Your task to perform on an android device: When is my next meeting? Image 0: 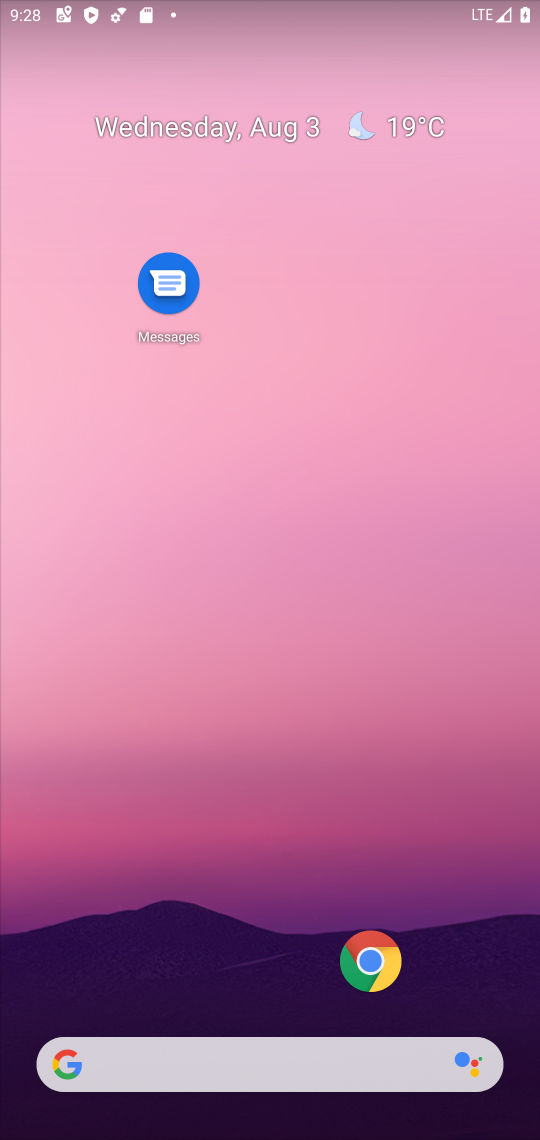
Step 0: drag from (261, 995) to (534, 692)
Your task to perform on an android device: When is my next meeting? Image 1: 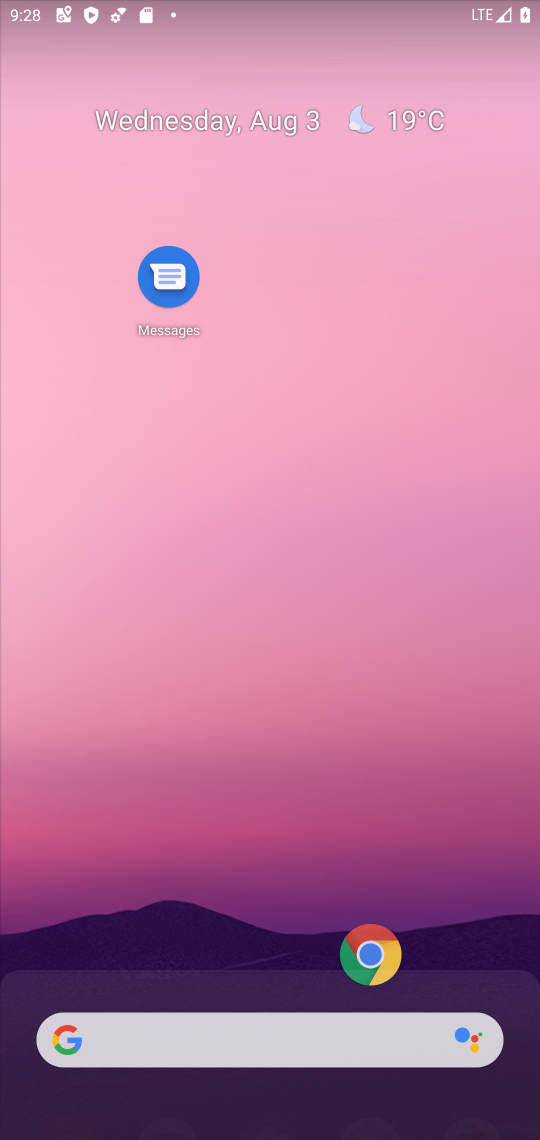
Step 1: click (465, 401)
Your task to perform on an android device: When is my next meeting? Image 2: 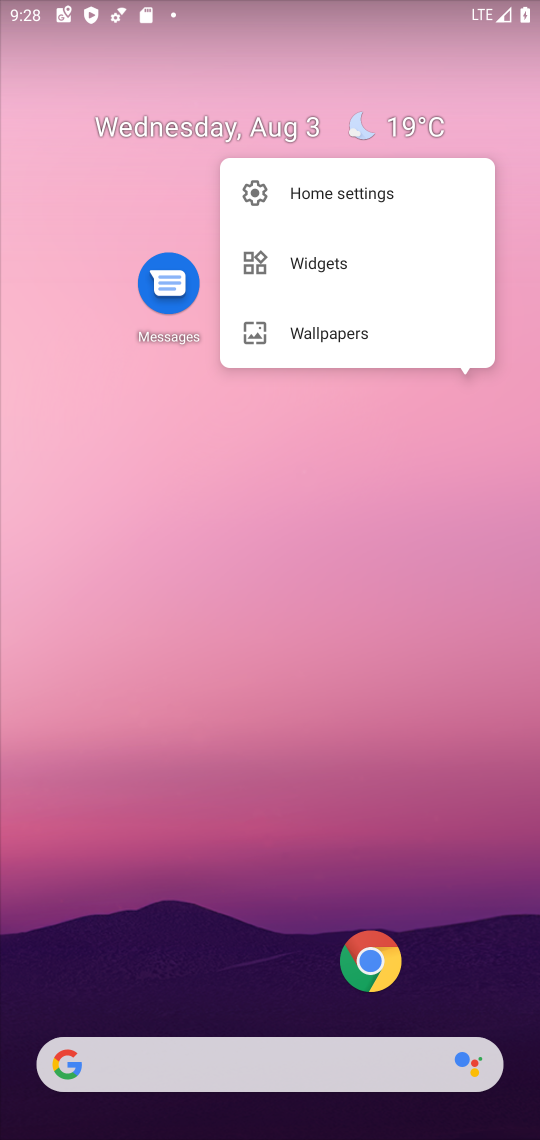
Step 2: drag from (248, 932) to (254, 70)
Your task to perform on an android device: When is my next meeting? Image 3: 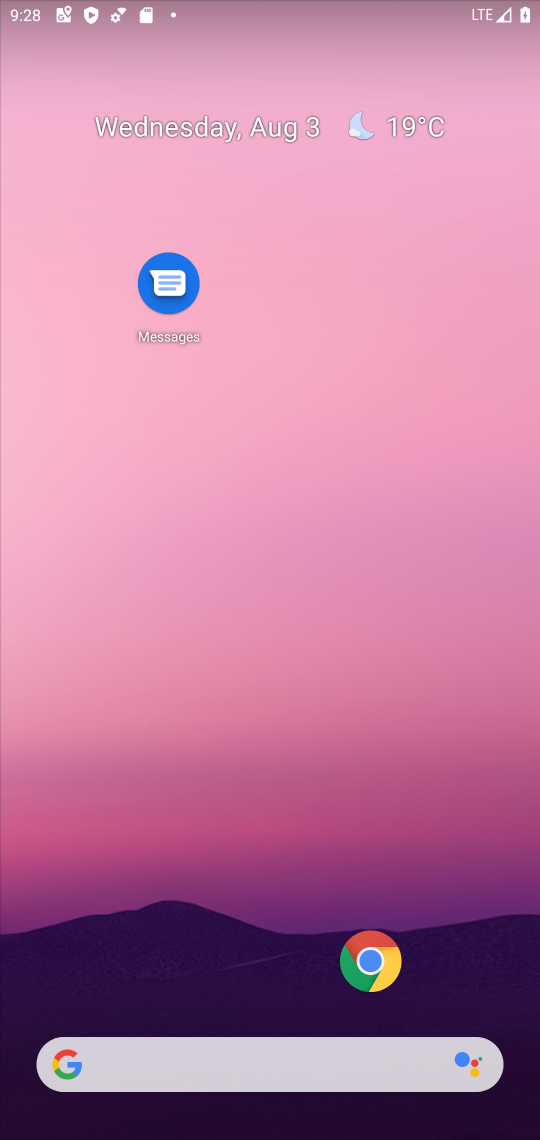
Step 3: drag from (331, 1006) to (288, 75)
Your task to perform on an android device: When is my next meeting? Image 4: 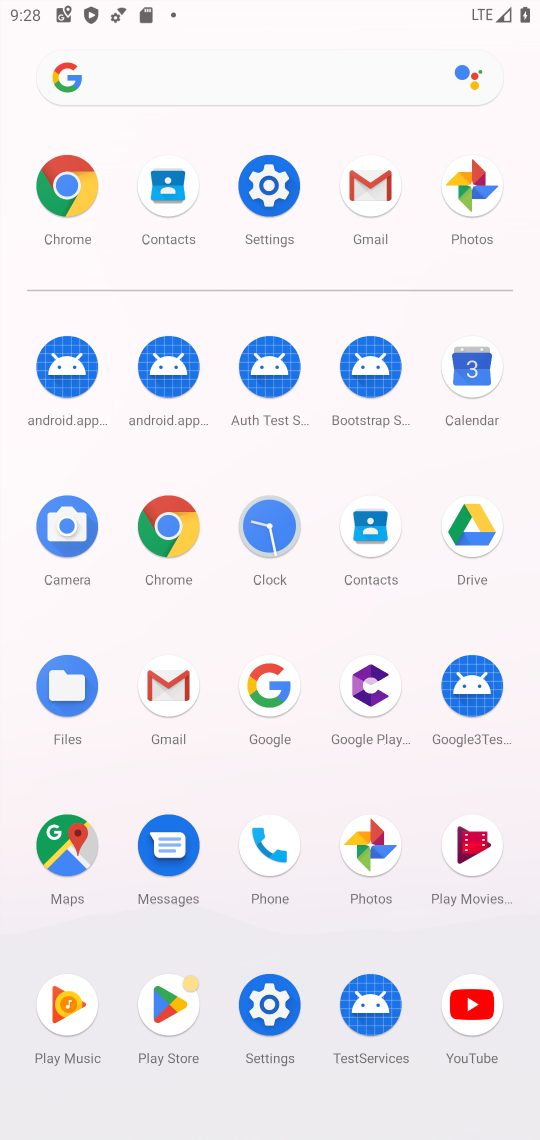
Step 4: click (480, 383)
Your task to perform on an android device: When is my next meeting? Image 5: 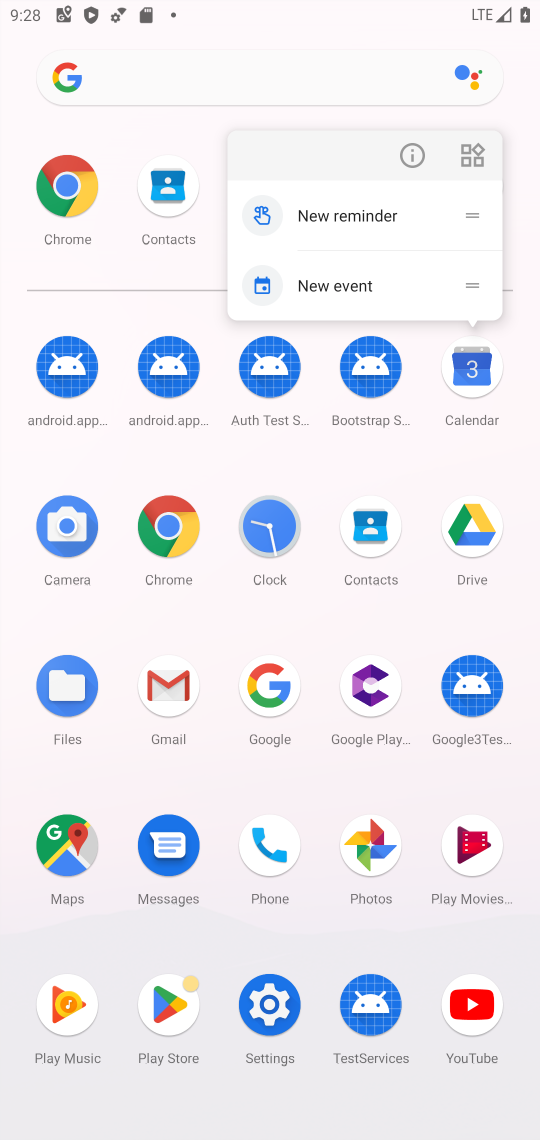
Step 5: click (480, 383)
Your task to perform on an android device: When is my next meeting? Image 6: 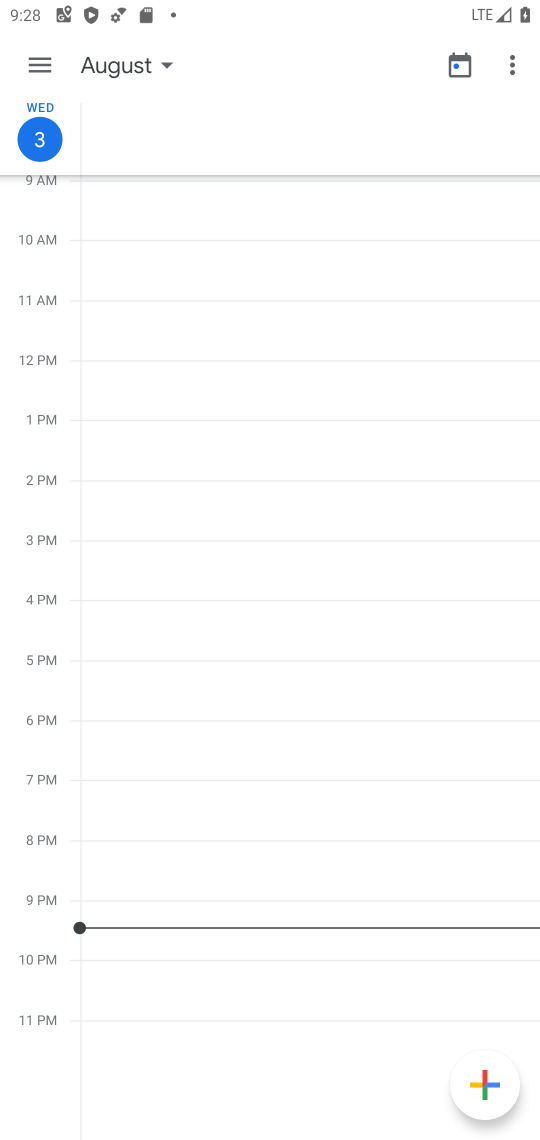
Step 6: click (39, 64)
Your task to perform on an android device: When is my next meeting? Image 7: 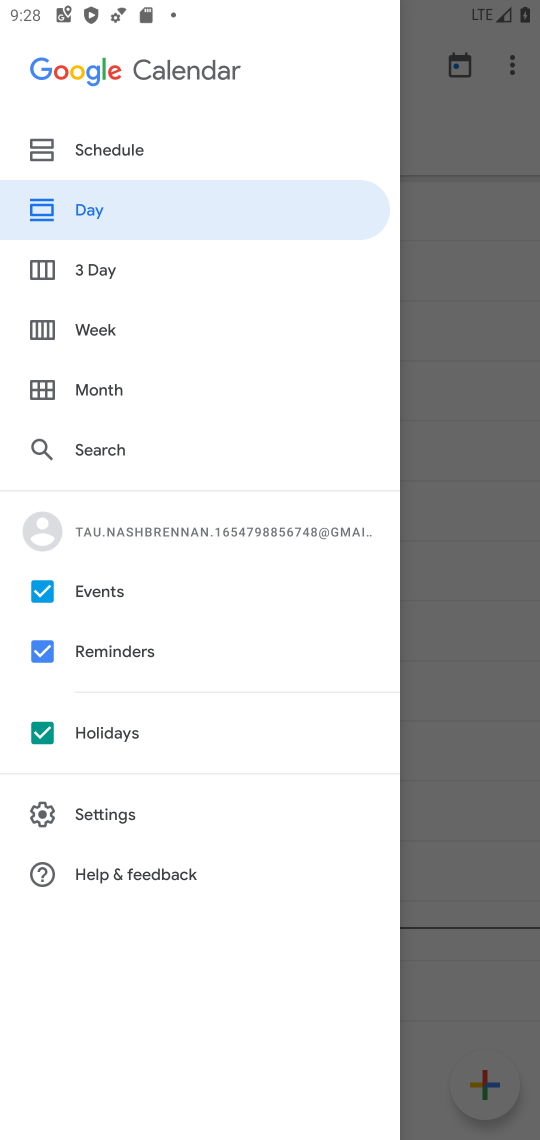
Step 7: click (120, 333)
Your task to perform on an android device: When is my next meeting? Image 8: 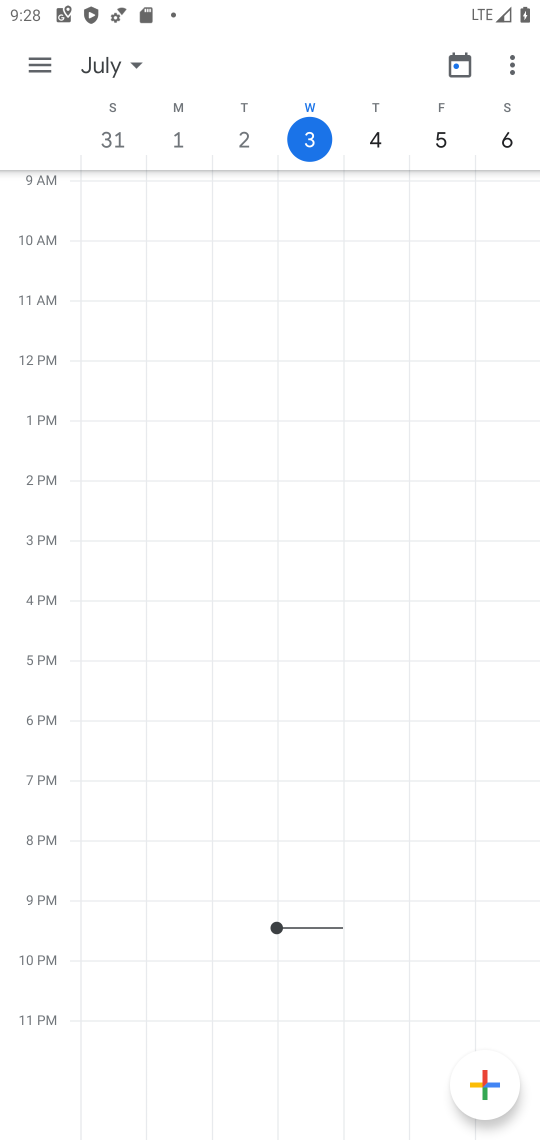
Step 8: task complete